Your task to perform on an android device: change keyboard looks Image 0: 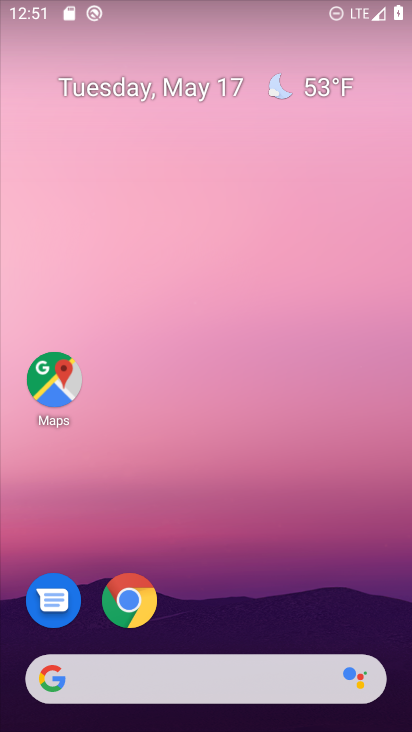
Step 0: drag from (217, 566) to (160, 217)
Your task to perform on an android device: change keyboard looks Image 1: 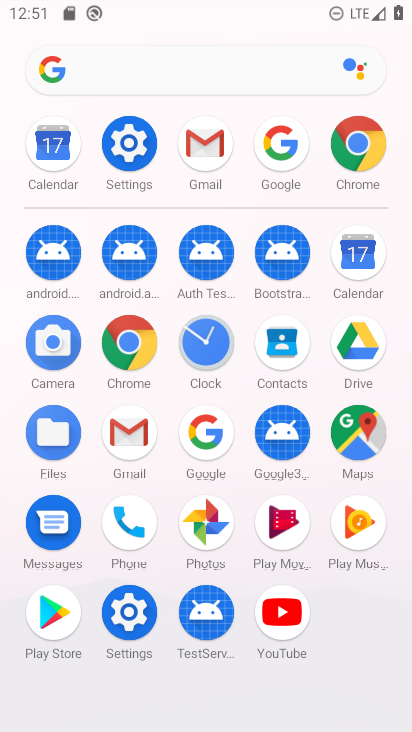
Step 1: click (123, 154)
Your task to perform on an android device: change keyboard looks Image 2: 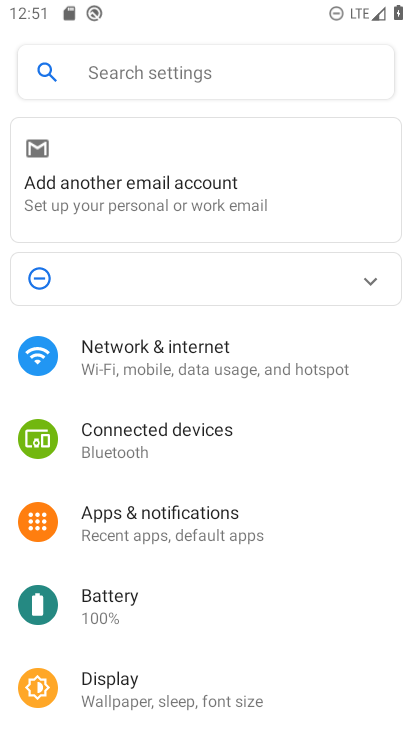
Step 2: drag from (216, 714) to (213, 298)
Your task to perform on an android device: change keyboard looks Image 3: 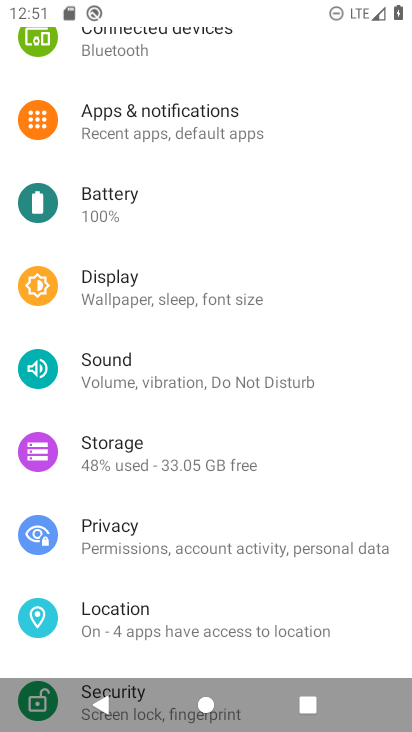
Step 3: drag from (198, 532) to (199, 181)
Your task to perform on an android device: change keyboard looks Image 4: 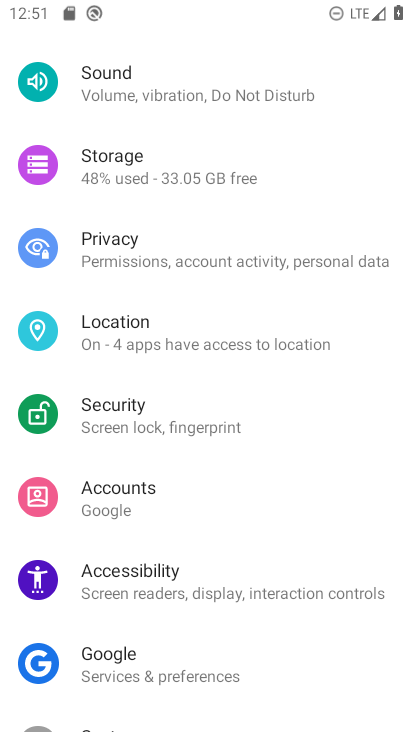
Step 4: drag from (127, 676) to (111, 558)
Your task to perform on an android device: change keyboard looks Image 5: 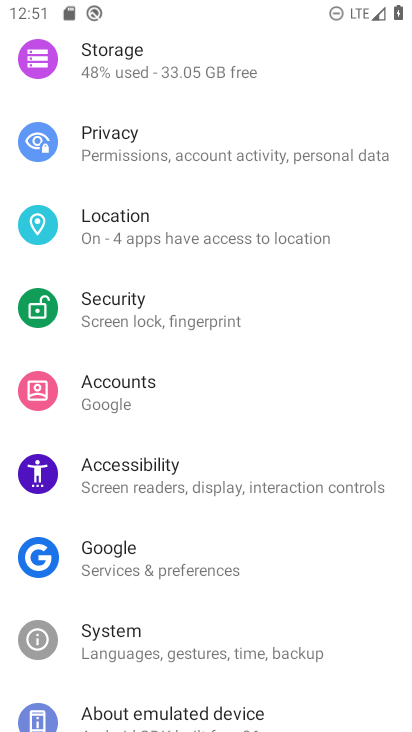
Step 5: click (141, 667)
Your task to perform on an android device: change keyboard looks Image 6: 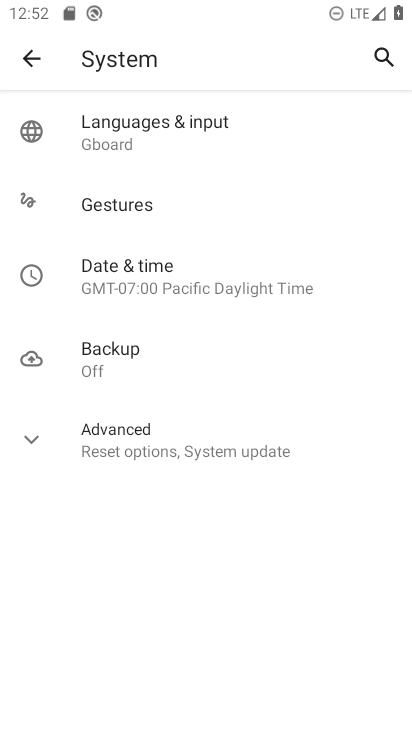
Step 6: click (91, 131)
Your task to perform on an android device: change keyboard looks Image 7: 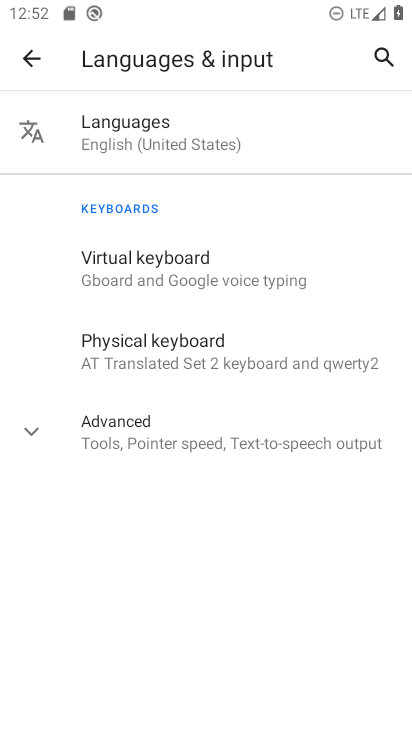
Step 7: click (139, 276)
Your task to perform on an android device: change keyboard looks Image 8: 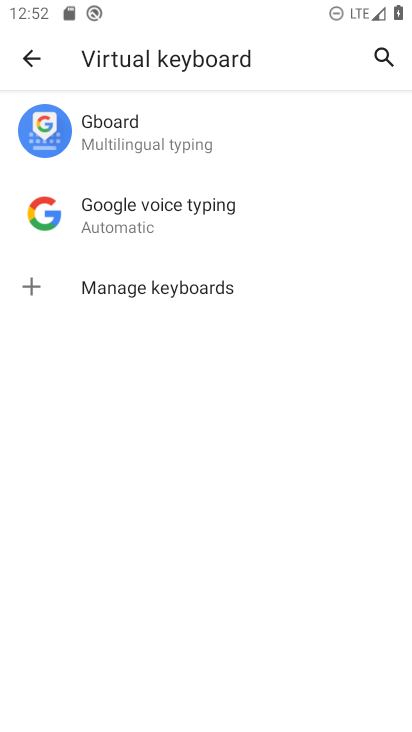
Step 8: click (80, 142)
Your task to perform on an android device: change keyboard looks Image 9: 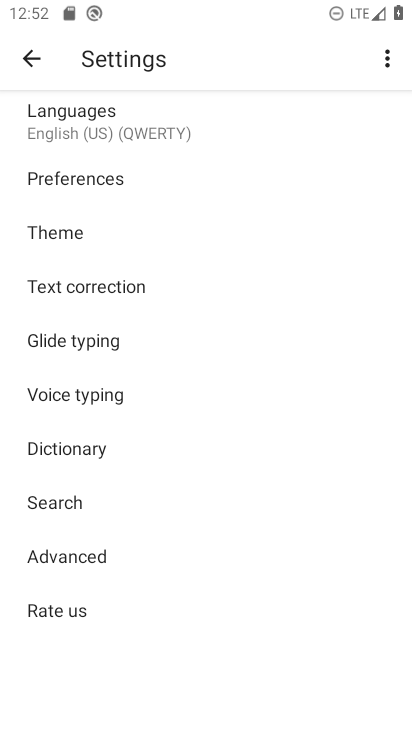
Step 9: click (83, 234)
Your task to perform on an android device: change keyboard looks Image 10: 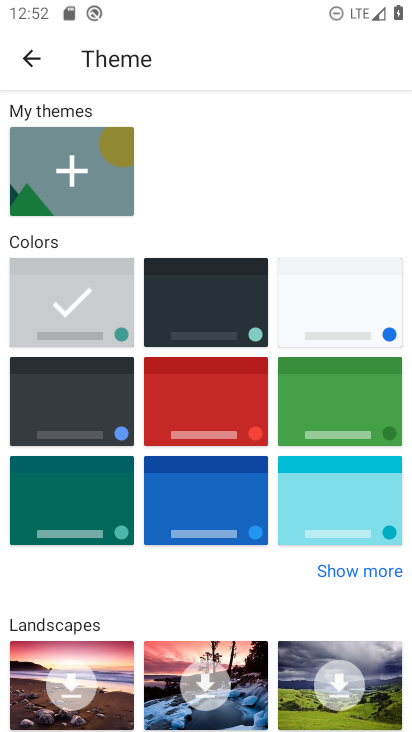
Step 10: click (196, 289)
Your task to perform on an android device: change keyboard looks Image 11: 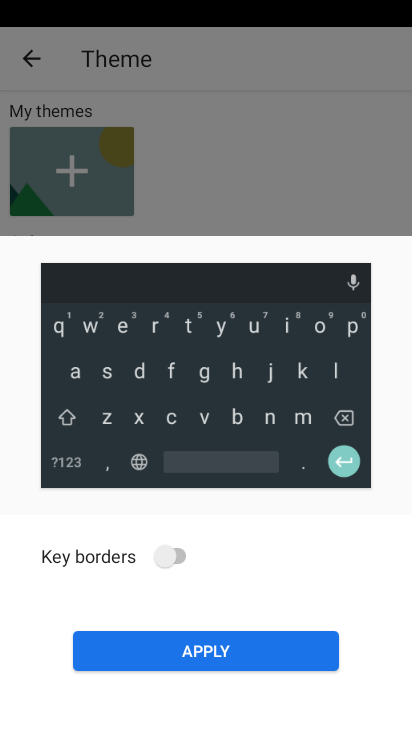
Step 11: click (199, 661)
Your task to perform on an android device: change keyboard looks Image 12: 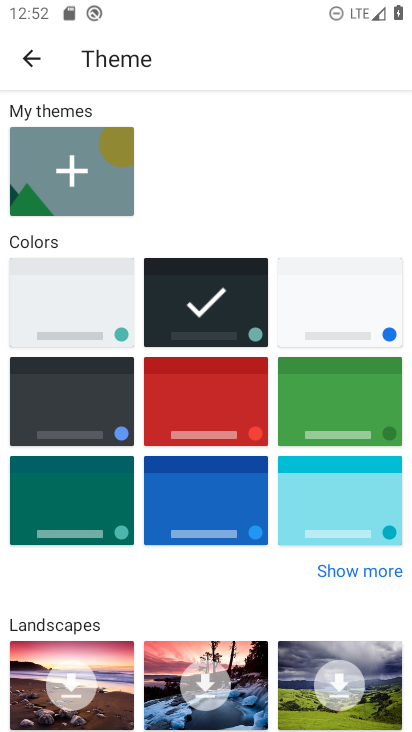
Step 12: task complete